Your task to perform on an android device: turn off priority inbox in the gmail app Image 0: 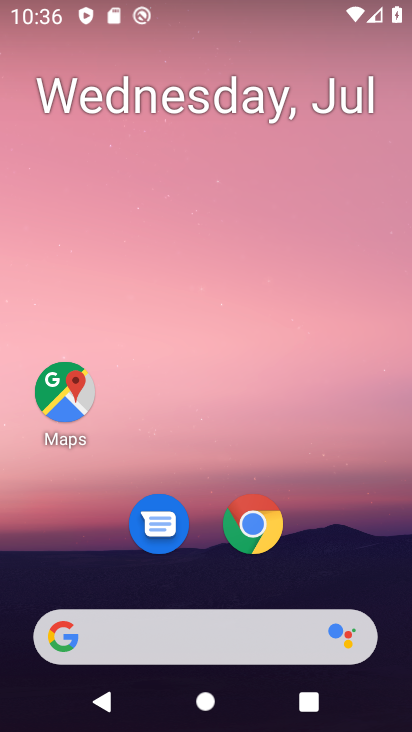
Step 0: press home button
Your task to perform on an android device: turn off priority inbox in the gmail app Image 1: 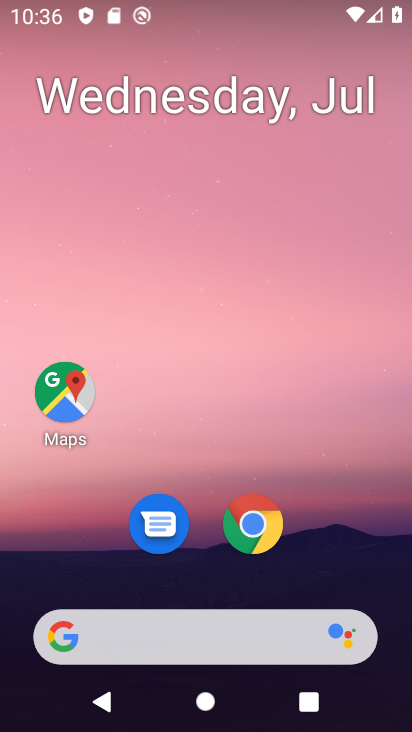
Step 1: drag from (203, 625) to (298, 184)
Your task to perform on an android device: turn off priority inbox in the gmail app Image 2: 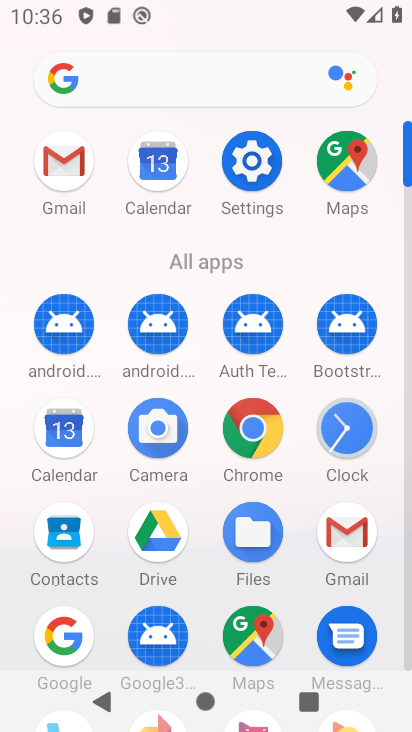
Step 2: click (80, 174)
Your task to perform on an android device: turn off priority inbox in the gmail app Image 3: 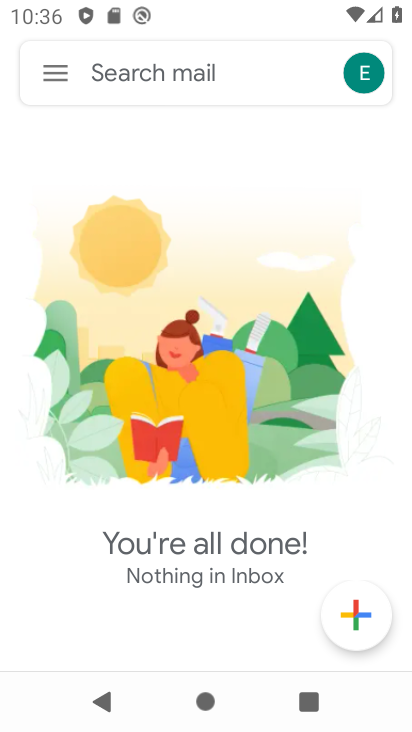
Step 3: click (50, 68)
Your task to perform on an android device: turn off priority inbox in the gmail app Image 4: 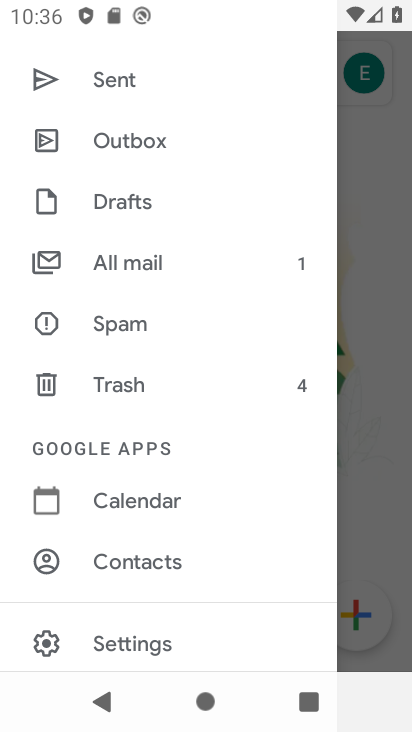
Step 4: click (133, 644)
Your task to perform on an android device: turn off priority inbox in the gmail app Image 5: 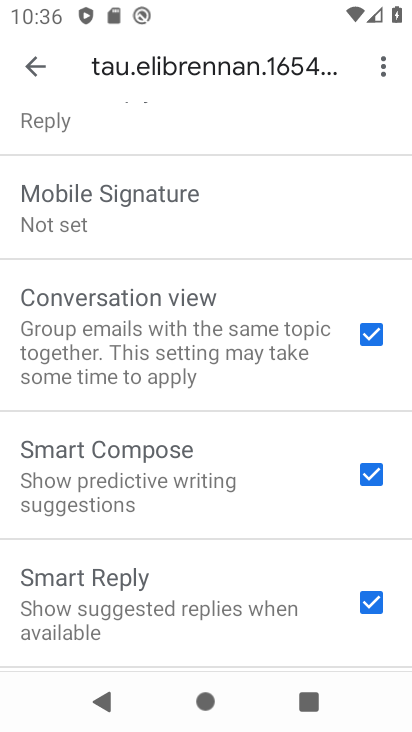
Step 5: drag from (280, 295) to (276, 601)
Your task to perform on an android device: turn off priority inbox in the gmail app Image 6: 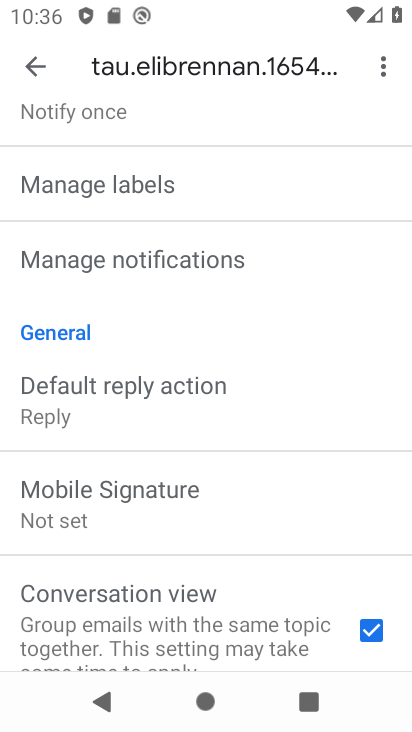
Step 6: drag from (286, 183) to (305, 571)
Your task to perform on an android device: turn off priority inbox in the gmail app Image 7: 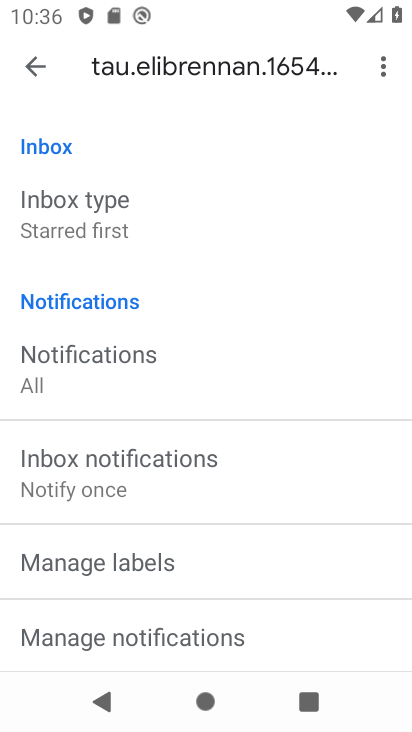
Step 7: drag from (301, 237) to (233, 626)
Your task to perform on an android device: turn off priority inbox in the gmail app Image 8: 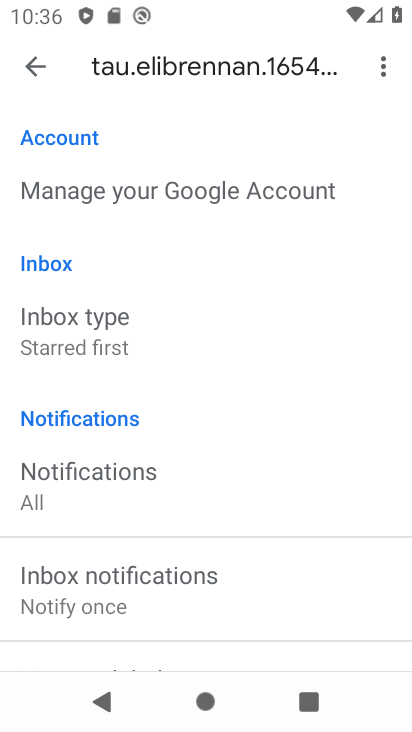
Step 8: click (109, 341)
Your task to perform on an android device: turn off priority inbox in the gmail app Image 9: 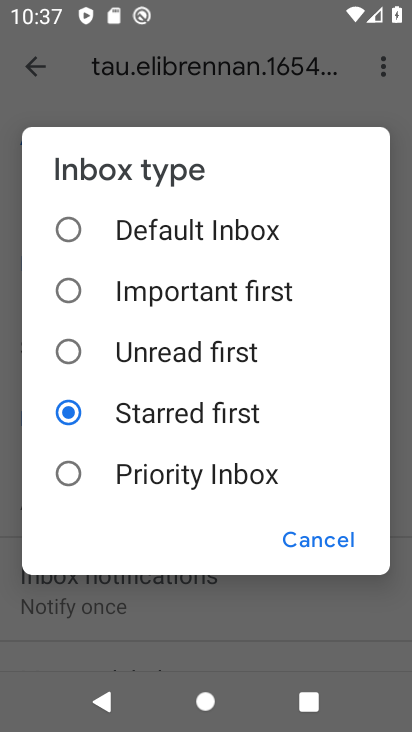
Step 9: task complete